Your task to perform on an android device: check the backup settings in the google photos Image 0: 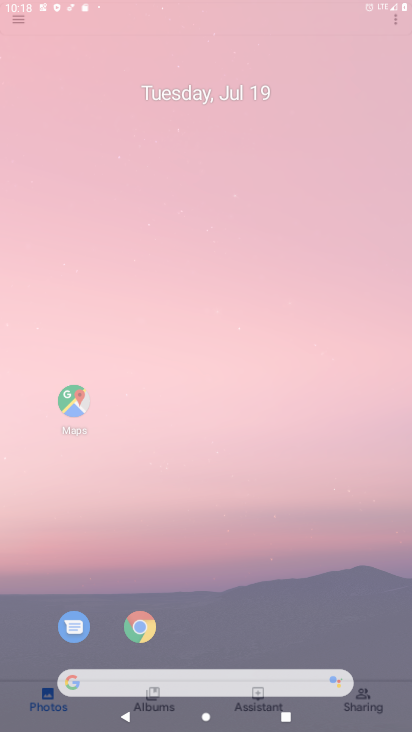
Step 0: click (411, 318)
Your task to perform on an android device: check the backup settings in the google photos Image 1: 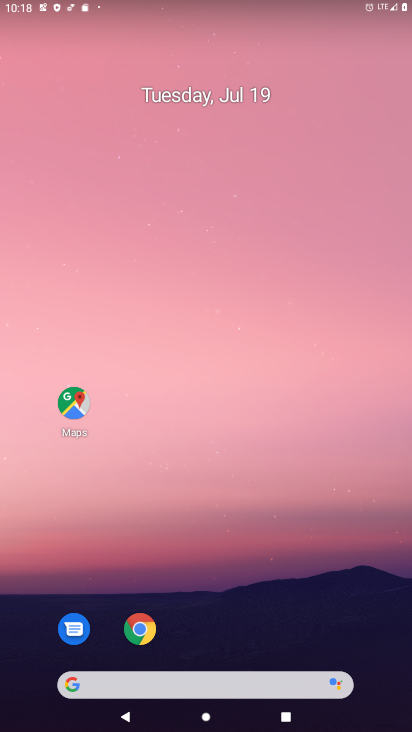
Step 1: drag from (230, 604) to (237, 4)
Your task to perform on an android device: check the backup settings in the google photos Image 2: 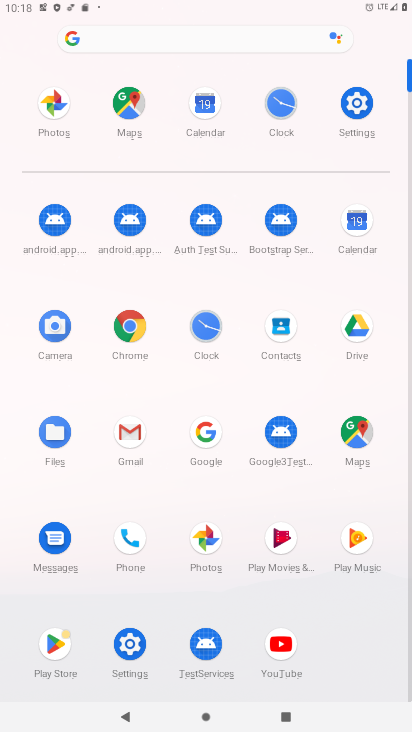
Step 2: click (207, 556)
Your task to perform on an android device: check the backup settings in the google photos Image 3: 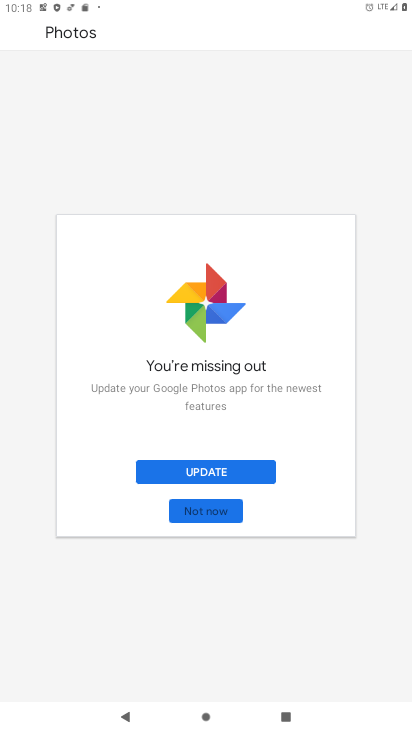
Step 3: click (206, 518)
Your task to perform on an android device: check the backup settings in the google photos Image 4: 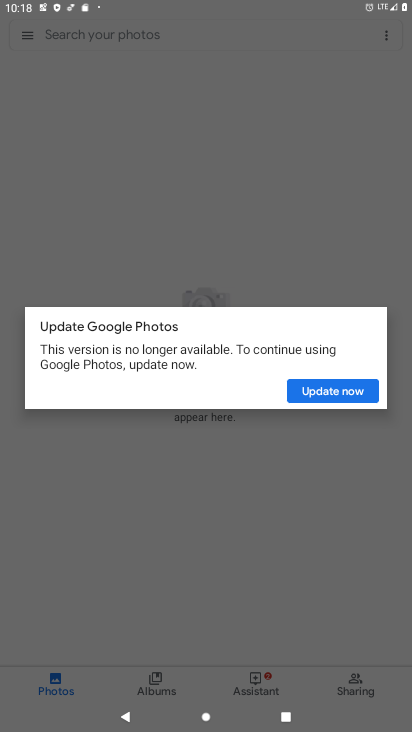
Step 4: click (356, 390)
Your task to perform on an android device: check the backup settings in the google photos Image 5: 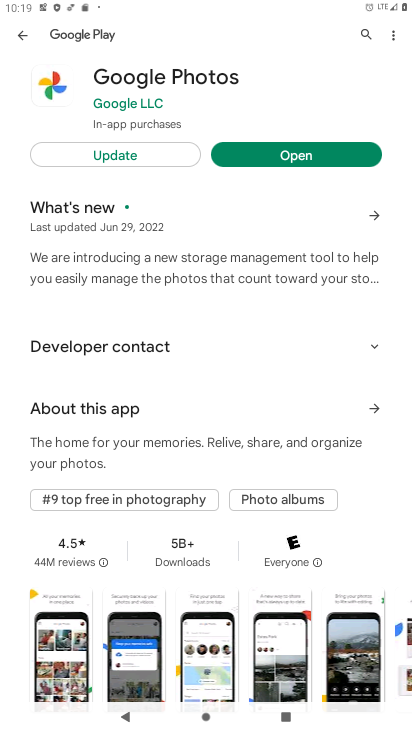
Step 5: click (300, 160)
Your task to perform on an android device: check the backup settings in the google photos Image 6: 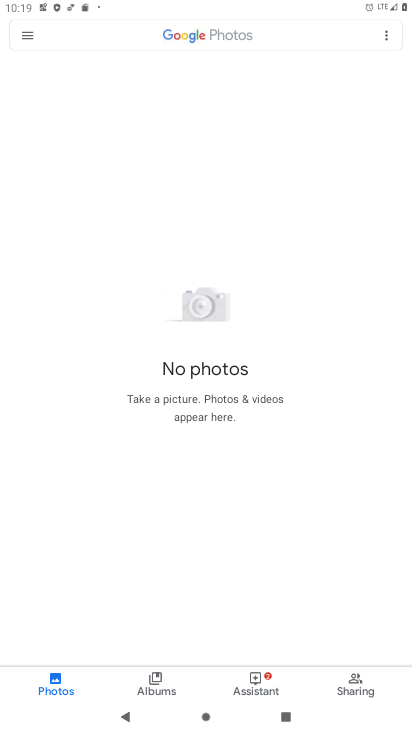
Step 6: click (29, 33)
Your task to perform on an android device: check the backup settings in the google photos Image 7: 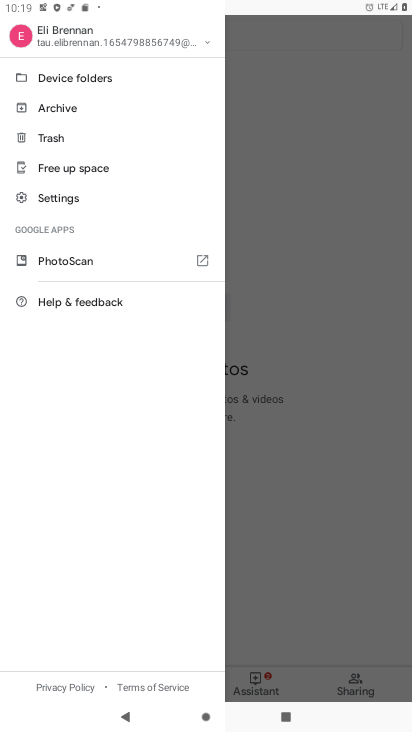
Step 7: click (65, 200)
Your task to perform on an android device: check the backup settings in the google photos Image 8: 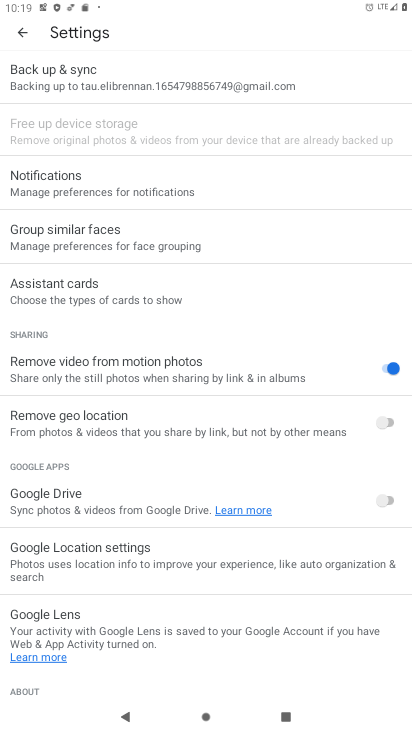
Step 8: click (89, 78)
Your task to perform on an android device: check the backup settings in the google photos Image 9: 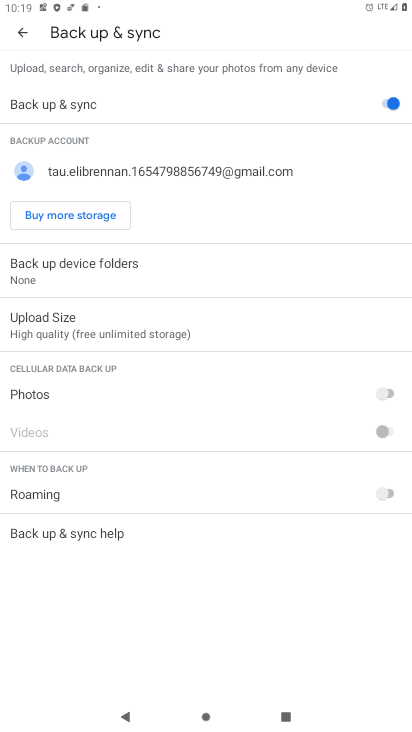
Step 9: task complete